Your task to perform on an android device: add a label to a message in the gmail app Image 0: 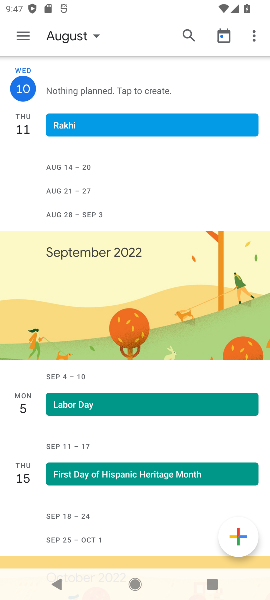
Step 0: press home button
Your task to perform on an android device: add a label to a message in the gmail app Image 1: 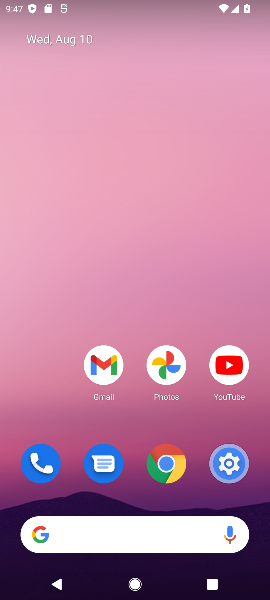
Step 1: drag from (24, 587) to (203, 182)
Your task to perform on an android device: add a label to a message in the gmail app Image 2: 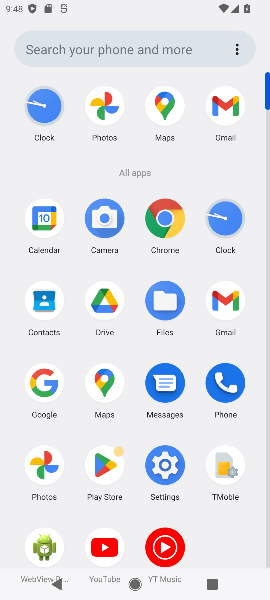
Step 2: click (217, 310)
Your task to perform on an android device: add a label to a message in the gmail app Image 3: 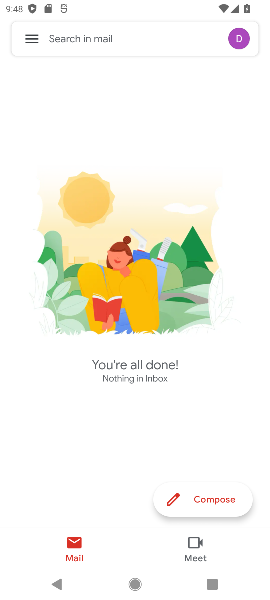
Step 3: click (34, 33)
Your task to perform on an android device: add a label to a message in the gmail app Image 4: 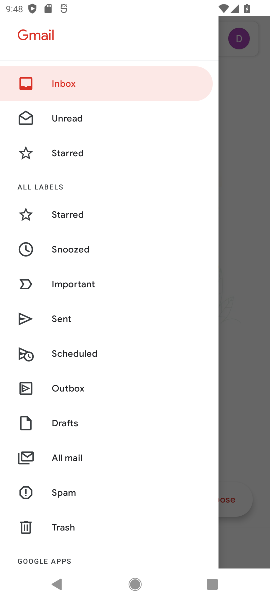
Step 4: click (73, 85)
Your task to perform on an android device: add a label to a message in the gmail app Image 5: 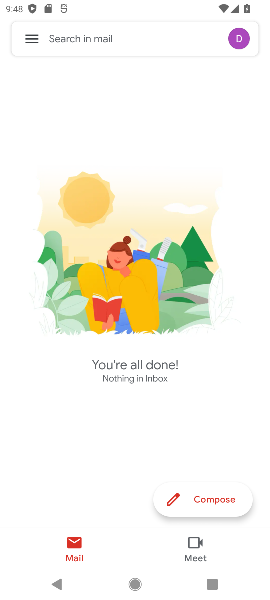
Step 5: task complete